Your task to perform on an android device: Open battery settings Image 0: 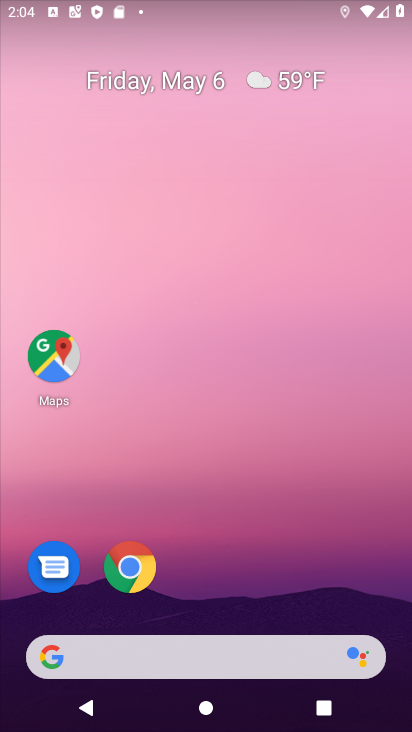
Step 0: drag from (387, 638) to (348, 0)
Your task to perform on an android device: Open battery settings Image 1: 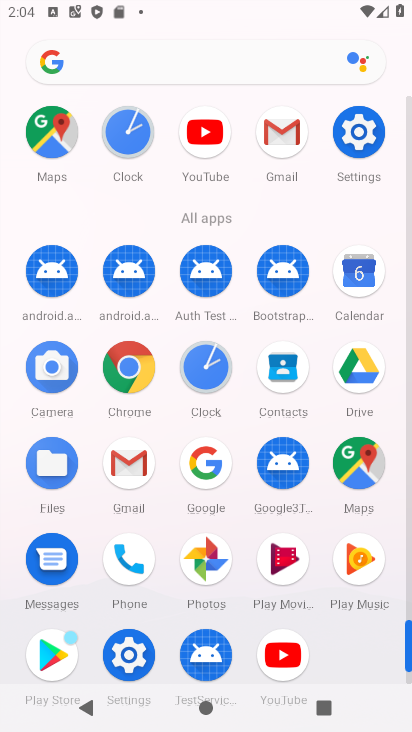
Step 1: click (126, 655)
Your task to perform on an android device: Open battery settings Image 2: 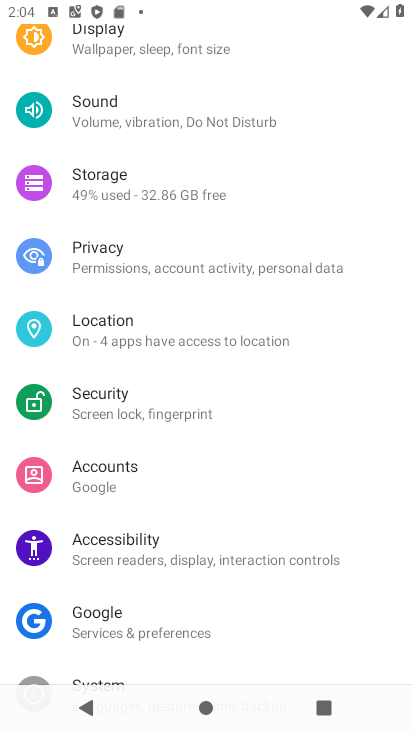
Step 2: drag from (352, 119) to (350, 405)
Your task to perform on an android device: Open battery settings Image 3: 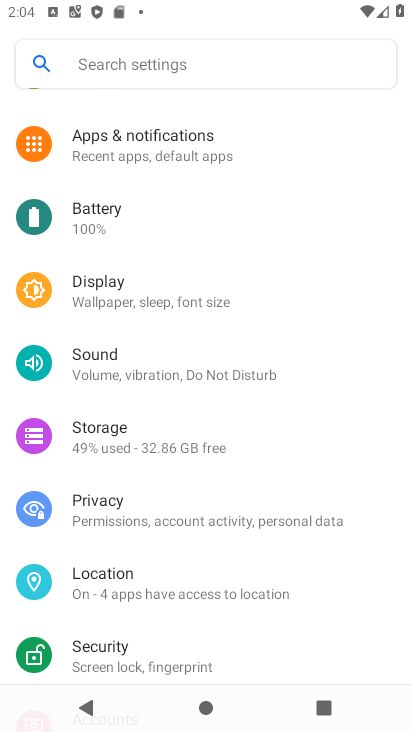
Step 3: click (78, 210)
Your task to perform on an android device: Open battery settings Image 4: 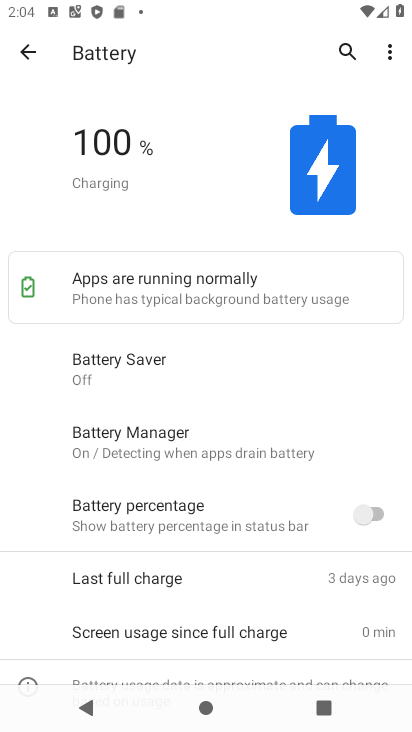
Step 4: task complete